Your task to perform on an android device: add a label to a message in the gmail app Image 0: 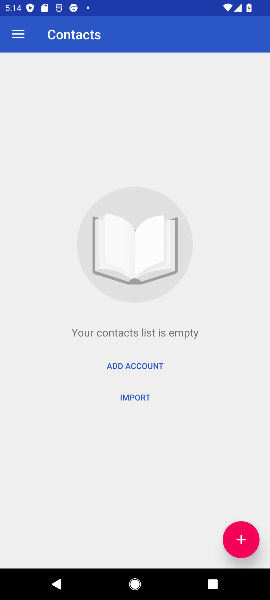
Step 0: press home button
Your task to perform on an android device: add a label to a message in the gmail app Image 1: 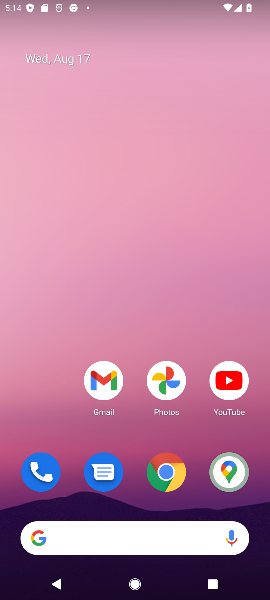
Step 1: click (117, 381)
Your task to perform on an android device: add a label to a message in the gmail app Image 2: 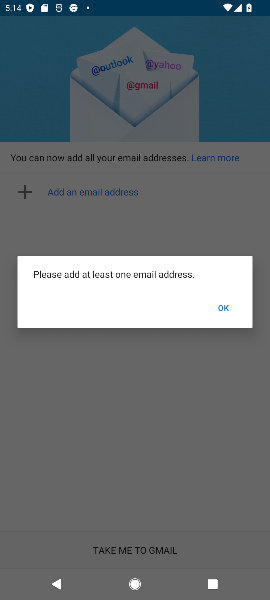
Step 2: click (218, 306)
Your task to perform on an android device: add a label to a message in the gmail app Image 3: 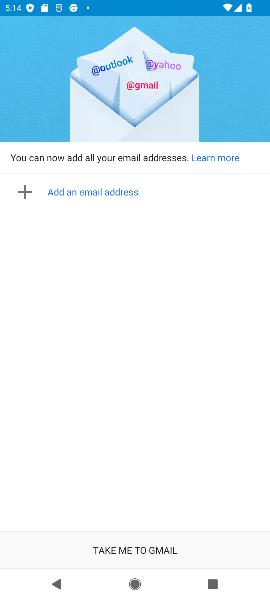
Step 3: task complete